Your task to perform on an android device: Toggle the flashlight Image 0: 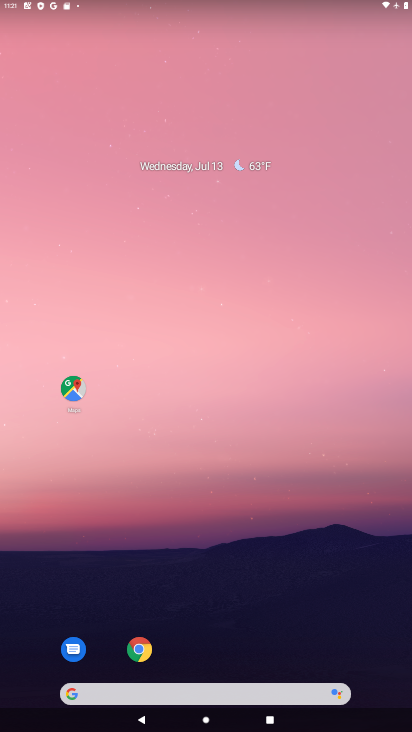
Step 0: drag from (225, 664) to (282, 110)
Your task to perform on an android device: Toggle the flashlight Image 1: 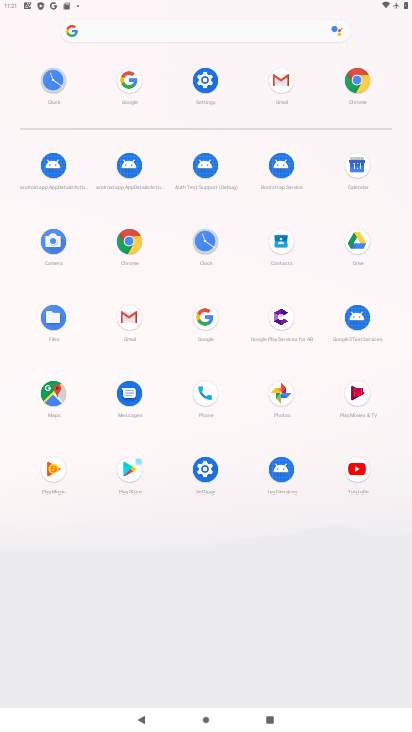
Step 1: click (210, 75)
Your task to perform on an android device: Toggle the flashlight Image 2: 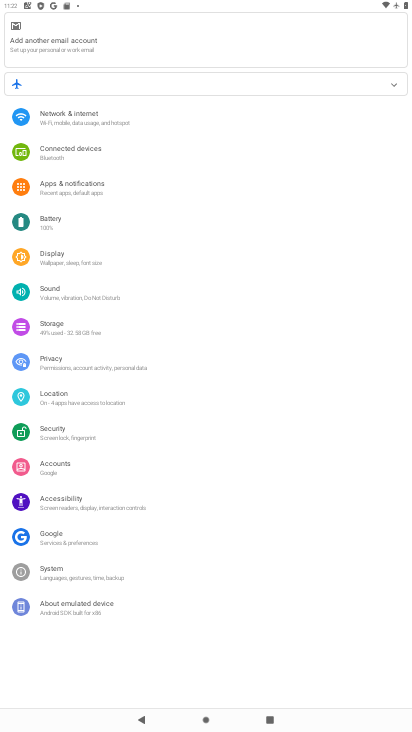
Step 2: task complete